Your task to perform on an android device: toggle wifi Image 0: 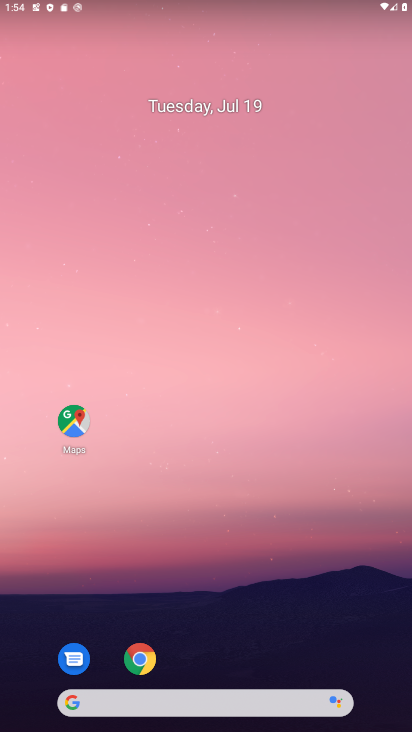
Step 0: press home button
Your task to perform on an android device: toggle wifi Image 1: 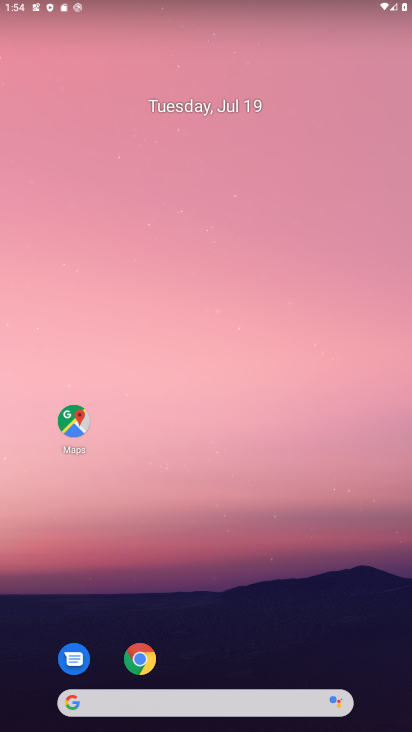
Step 1: drag from (259, 693) to (271, 654)
Your task to perform on an android device: toggle wifi Image 2: 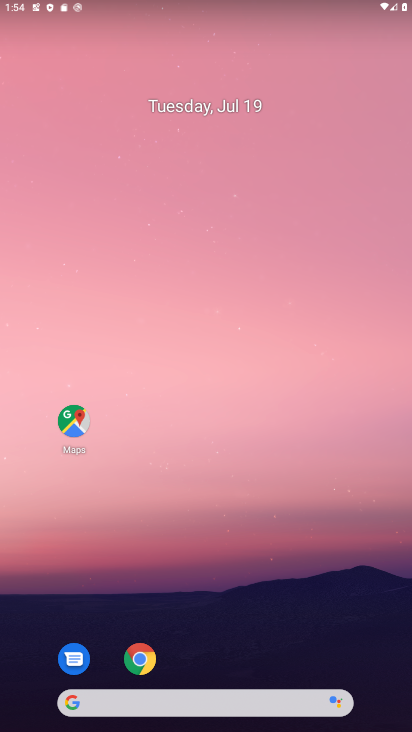
Step 2: drag from (397, 15) to (266, 690)
Your task to perform on an android device: toggle wifi Image 3: 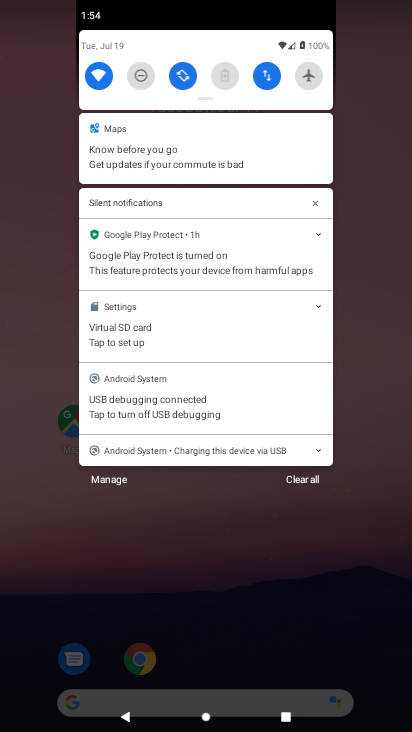
Step 3: click (106, 69)
Your task to perform on an android device: toggle wifi Image 4: 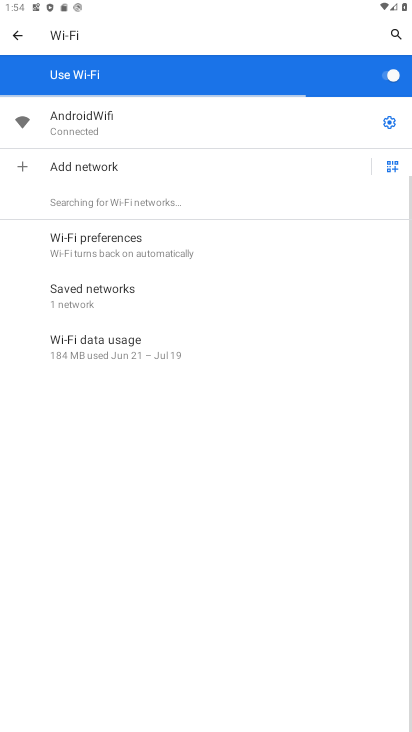
Step 4: click (230, 81)
Your task to perform on an android device: toggle wifi Image 5: 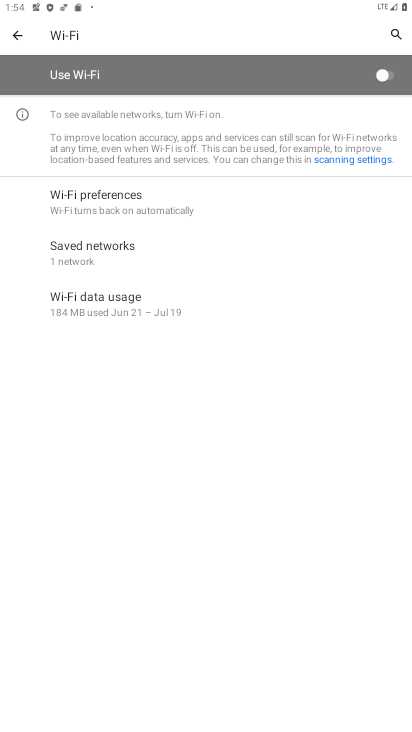
Step 5: task complete